Your task to perform on an android device: change alarm snooze length Image 0: 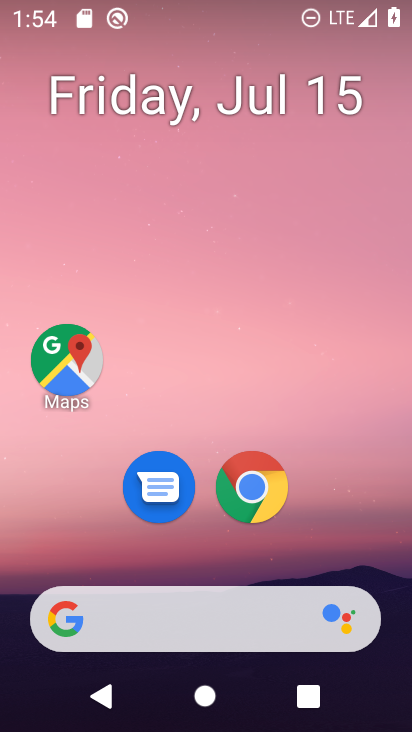
Step 0: drag from (258, 435) to (280, 125)
Your task to perform on an android device: change alarm snooze length Image 1: 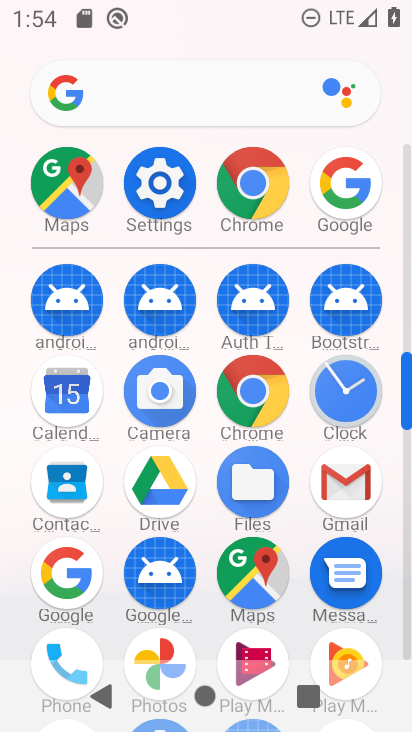
Step 1: click (359, 394)
Your task to perform on an android device: change alarm snooze length Image 2: 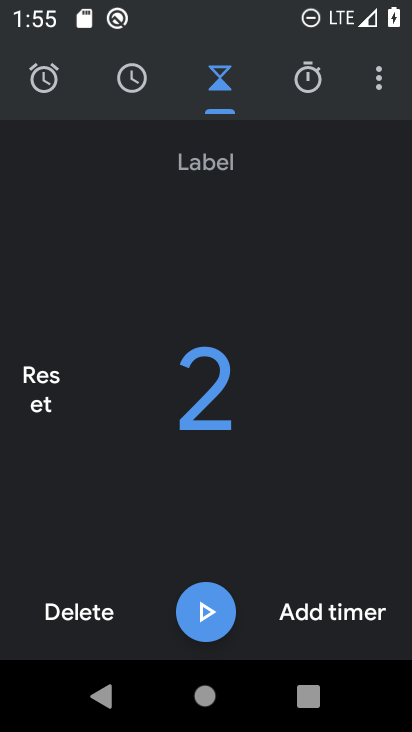
Step 2: click (373, 97)
Your task to perform on an android device: change alarm snooze length Image 3: 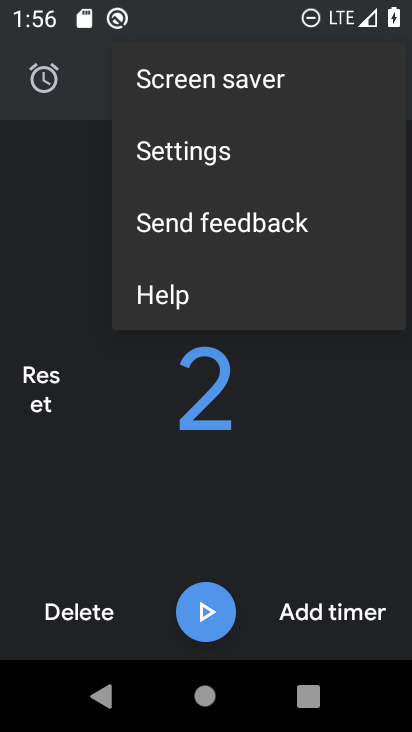
Step 3: click (246, 151)
Your task to perform on an android device: change alarm snooze length Image 4: 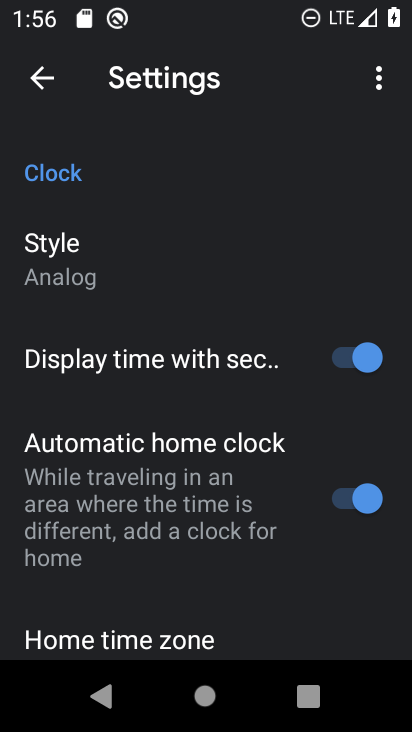
Step 4: drag from (191, 559) to (275, 101)
Your task to perform on an android device: change alarm snooze length Image 5: 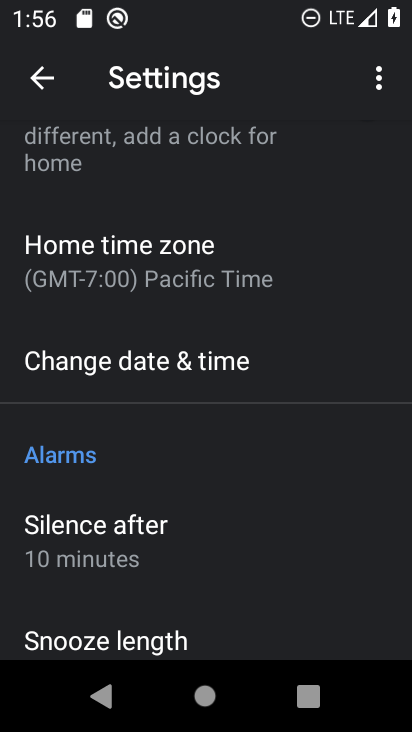
Step 5: drag from (171, 596) to (249, 265)
Your task to perform on an android device: change alarm snooze length Image 6: 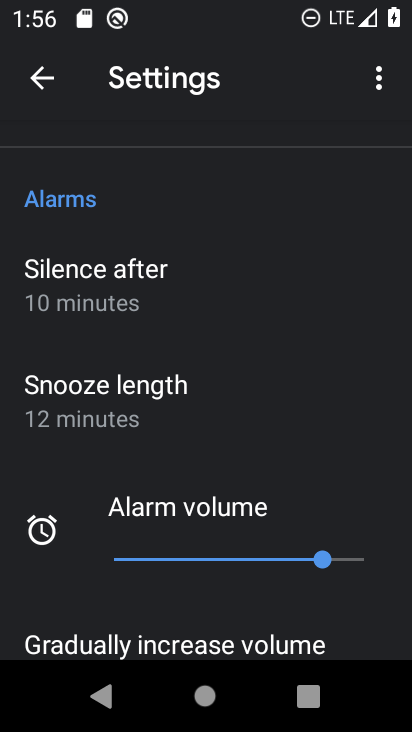
Step 6: click (210, 401)
Your task to perform on an android device: change alarm snooze length Image 7: 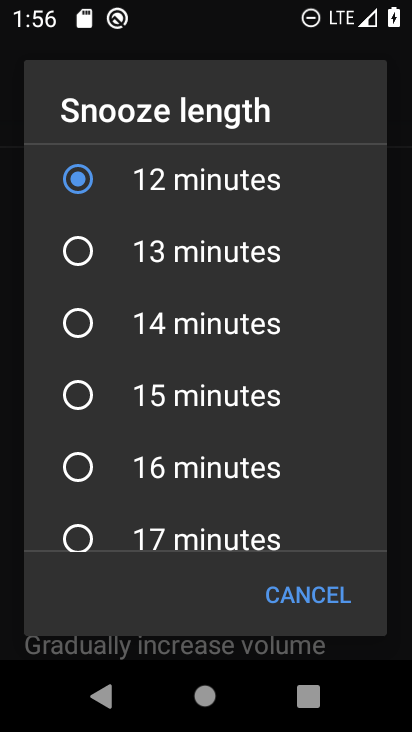
Step 7: drag from (128, 264) to (200, 591)
Your task to perform on an android device: change alarm snooze length Image 8: 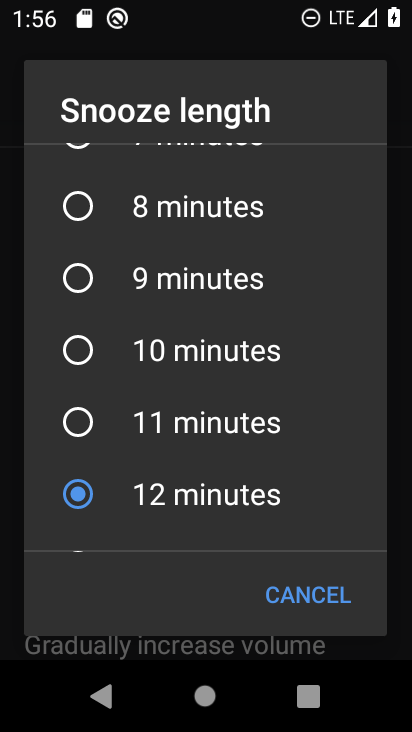
Step 8: click (75, 353)
Your task to perform on an android device: change alarm snooze length Image 9: 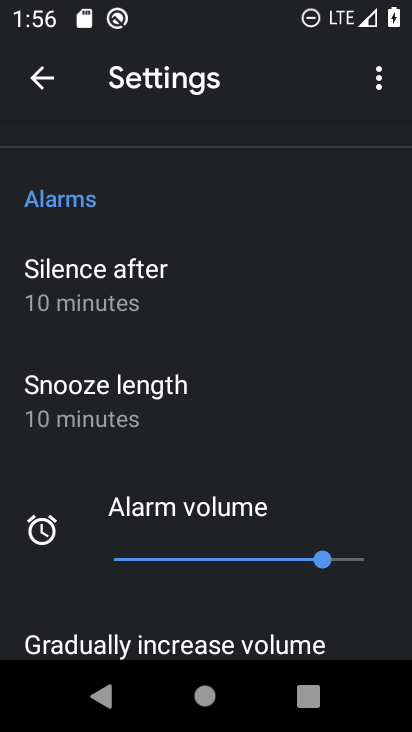
Step 9: task complete